Your task to perform on an android device: delete location history Image 0: 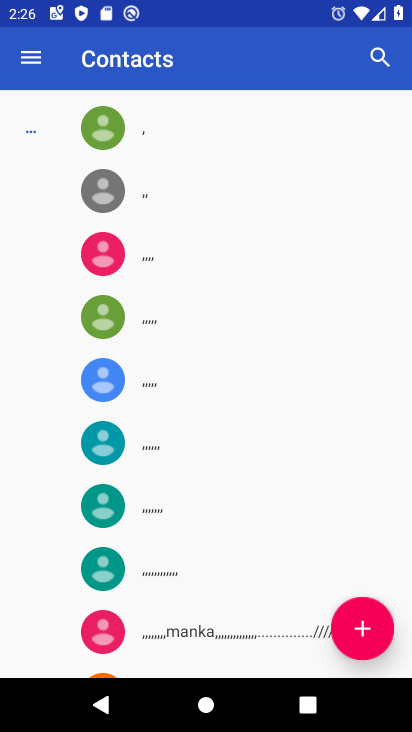
Step 0: press home button
Your task to perform on an android device: delete location history Image 1: 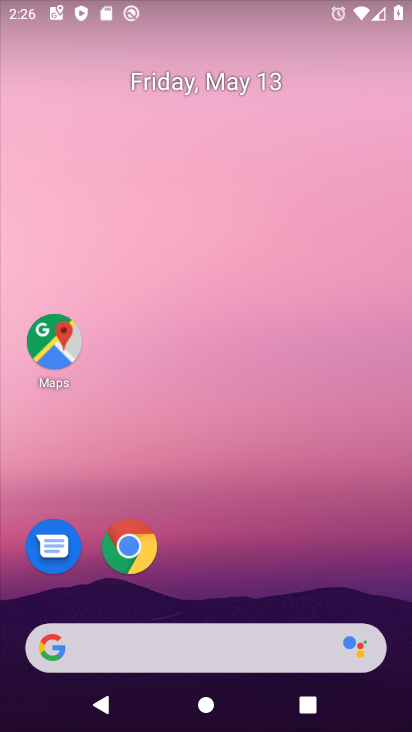
Step 1: drag from (342, 593) to (294, 196)
Your task to perform on an android device: delete location history Image 2: 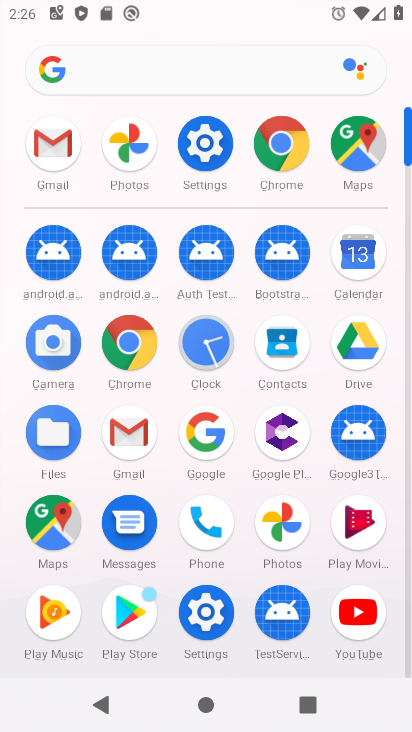
Step 2: click (368, 154)
Your task to perform on an android device: delete location history Image 3: 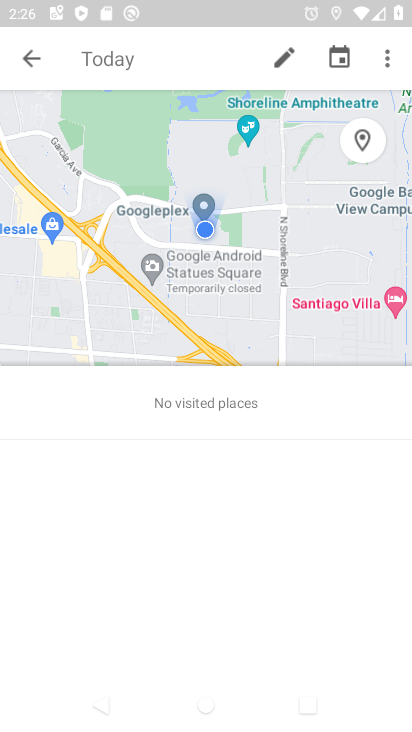
Step 3: click (33, 53)
Your task to perform on an android device: delete location history Image 4: 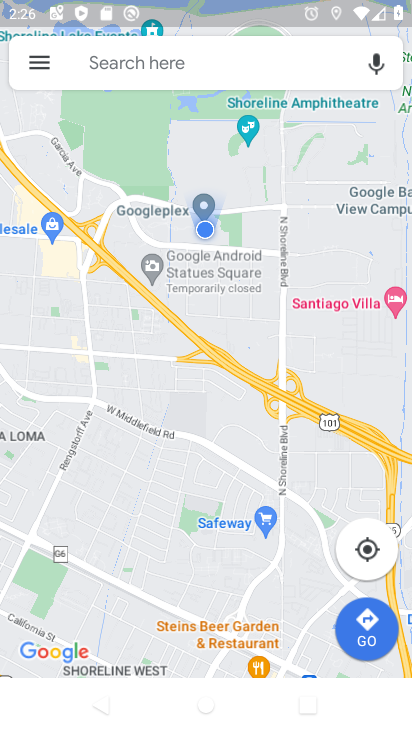
Step 4: click (40, 63)
Your task to perform on an android device: delete location history Image 5: 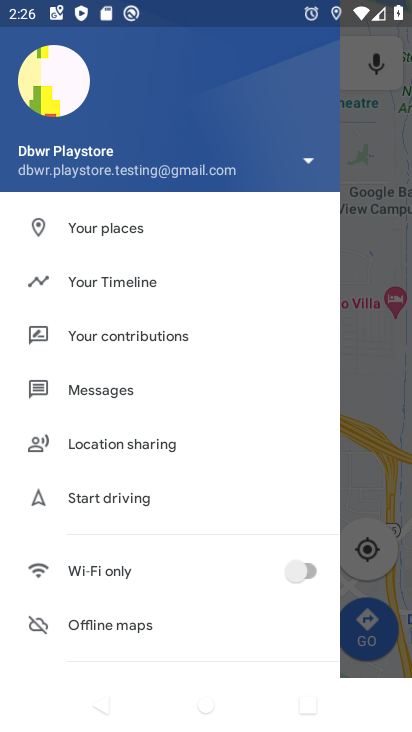
Step 5: drag from (163, 561) to (228, 122)
Your task to perform on an android device: delete location history Image 6: 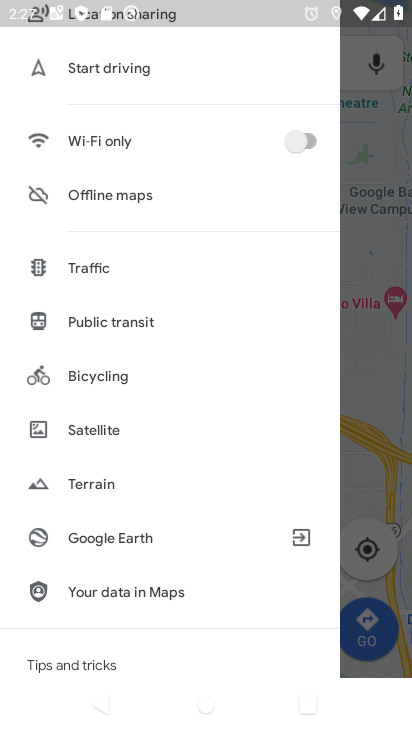
Step 6: drag from (121, 589) to (227, 227)
Your task to perform on an android device: delete location history Image 7: 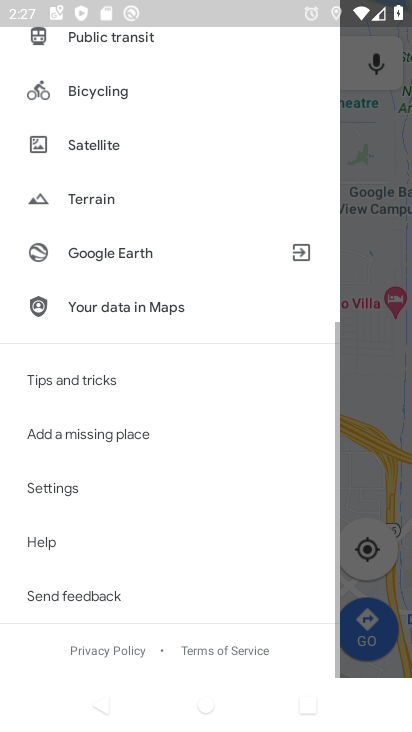
Step 7: click (69, 484)
Your task to perform on an android device: delete location history Image 8: 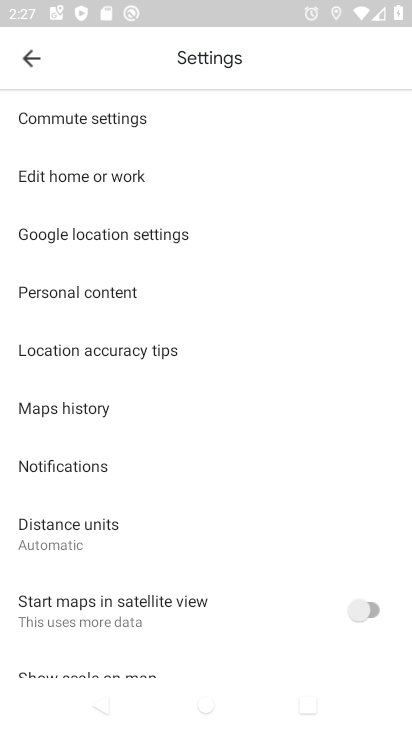
Step 8: click (85, 408)
Your task to perform on an android device: delete location history Image 9: 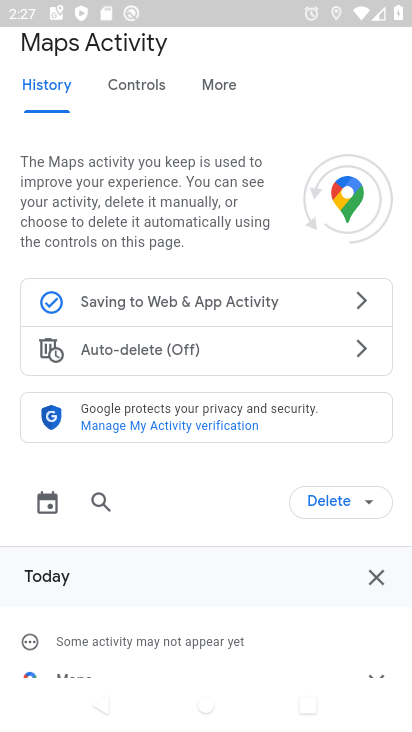
Step 9: click (346, 501)
Your task to perform on an android device: delete location history Image 10: 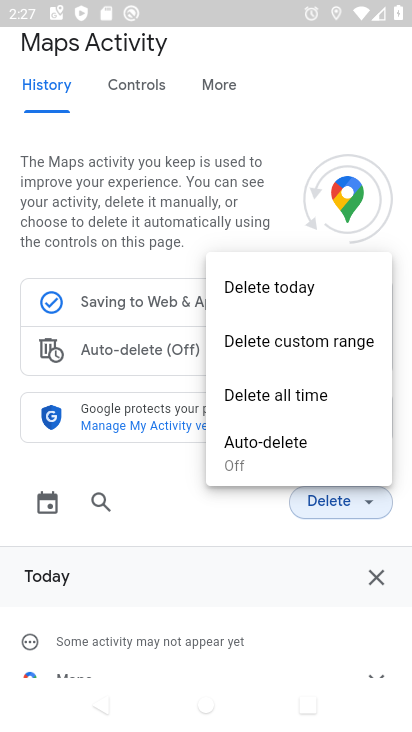
Step 10: click (373, 492)
Your task to perform on an android device: delete location history Image 11: 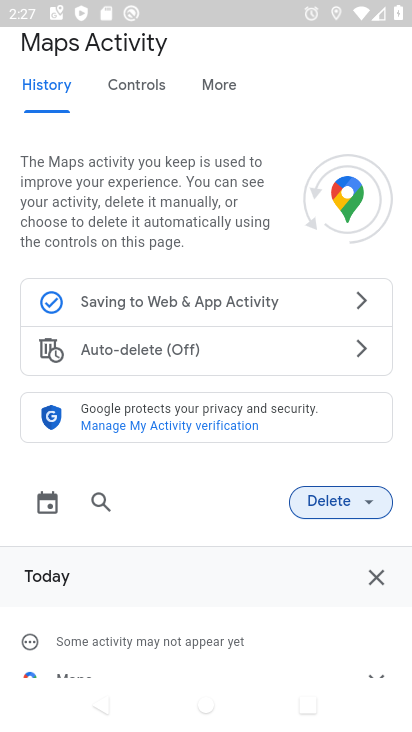
Step 11: click (376, 505)
Your task to perform on an android device: delete location history Image 12: 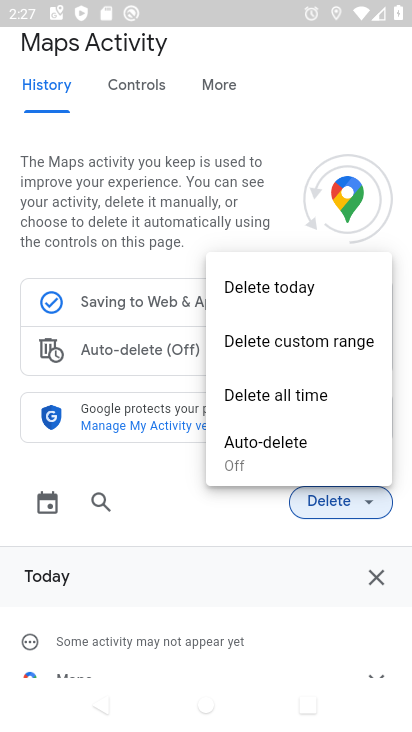
Step 12: click (307, 405)
Your task to perform on an android device: delete location history Image 13: 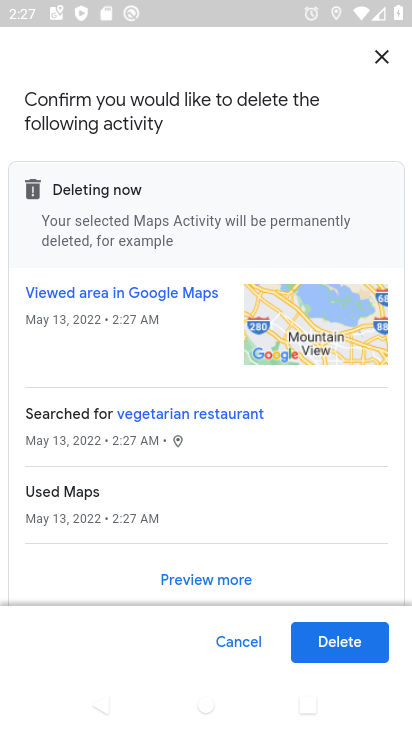
Step 13: click (347, 641)
Your task to perform on an android device: delete location history Image 14: 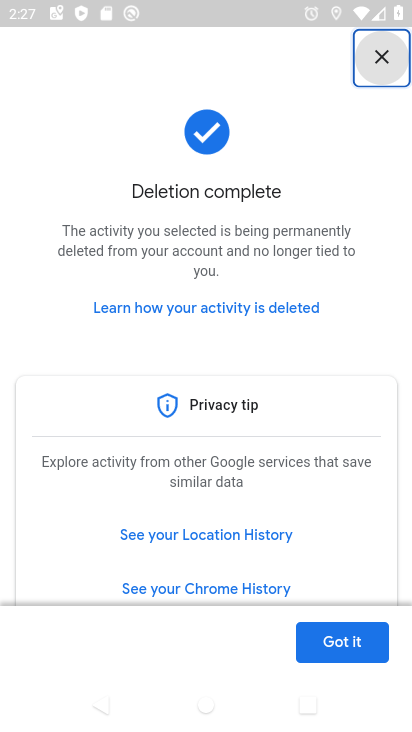
Step 14: task complete